Your task to perform on an android device: Open the calendar and show me this week's events? Image 0: 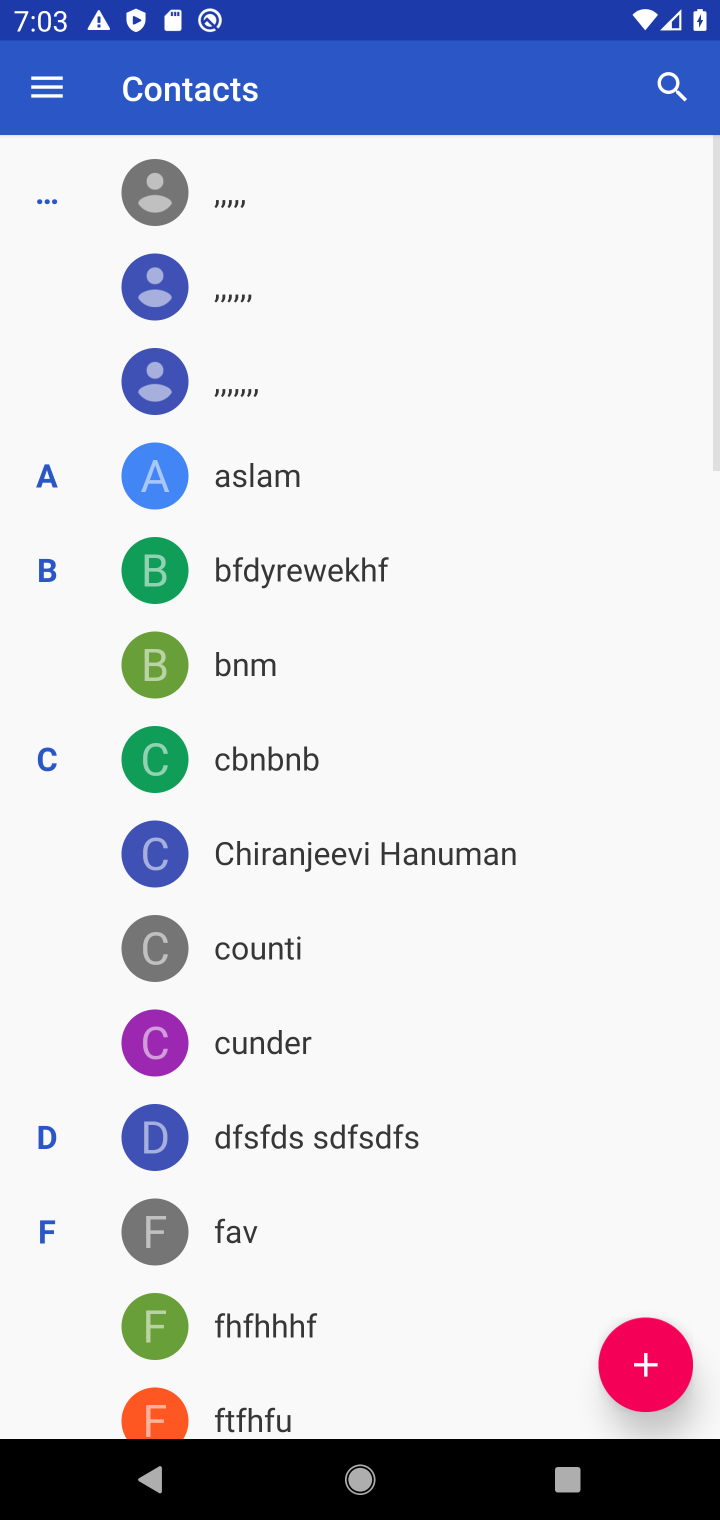
Step 0: press home button
Your task to perform on an android device: Open the calendar and show me this week's events? Image 1: 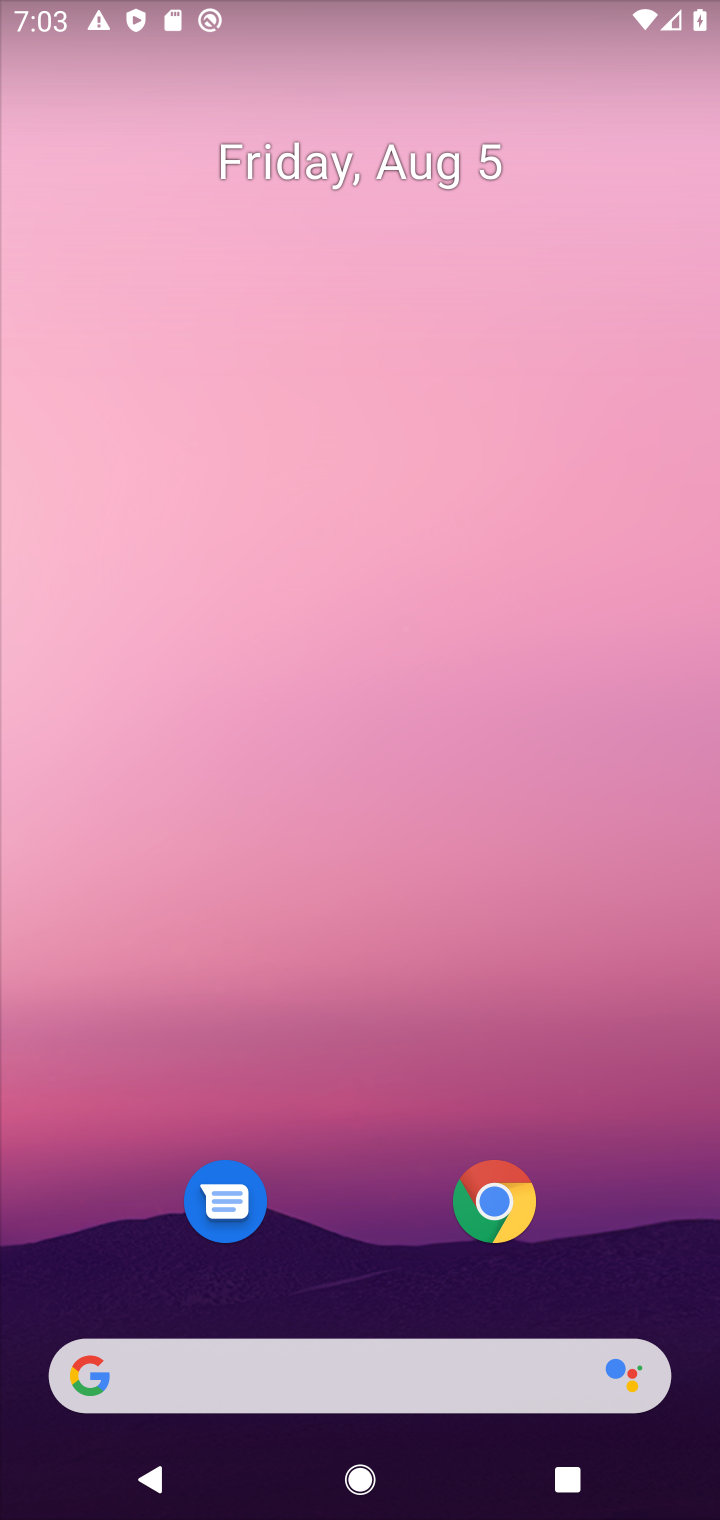
Step 1: drag from (402, 1272) to (283, 579)
Your task to perform on an android device: Open the calendar and show me this week's events? Image 2: 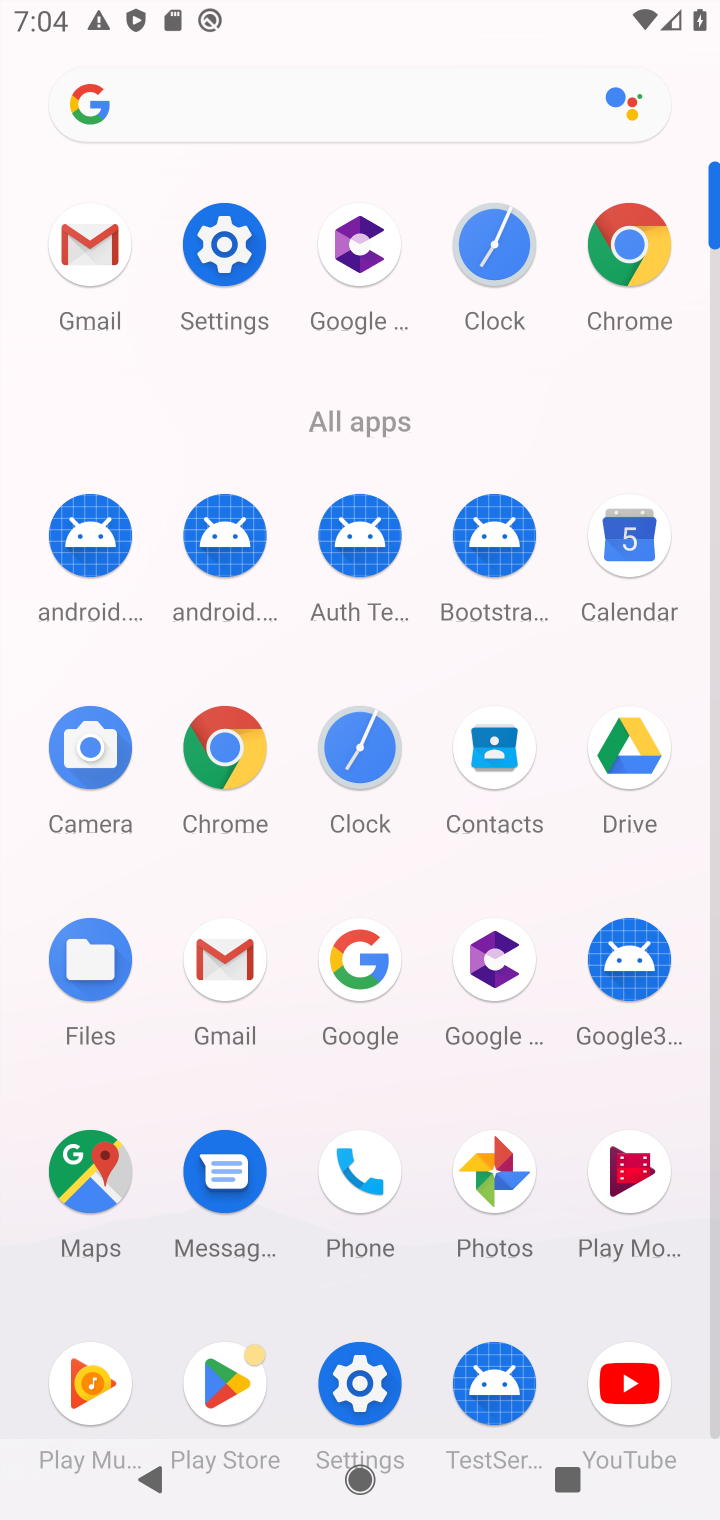
Step 2: click (626, 538)
Your task to perform on an android device: Open the calendar and show me this week's events? Image 3: 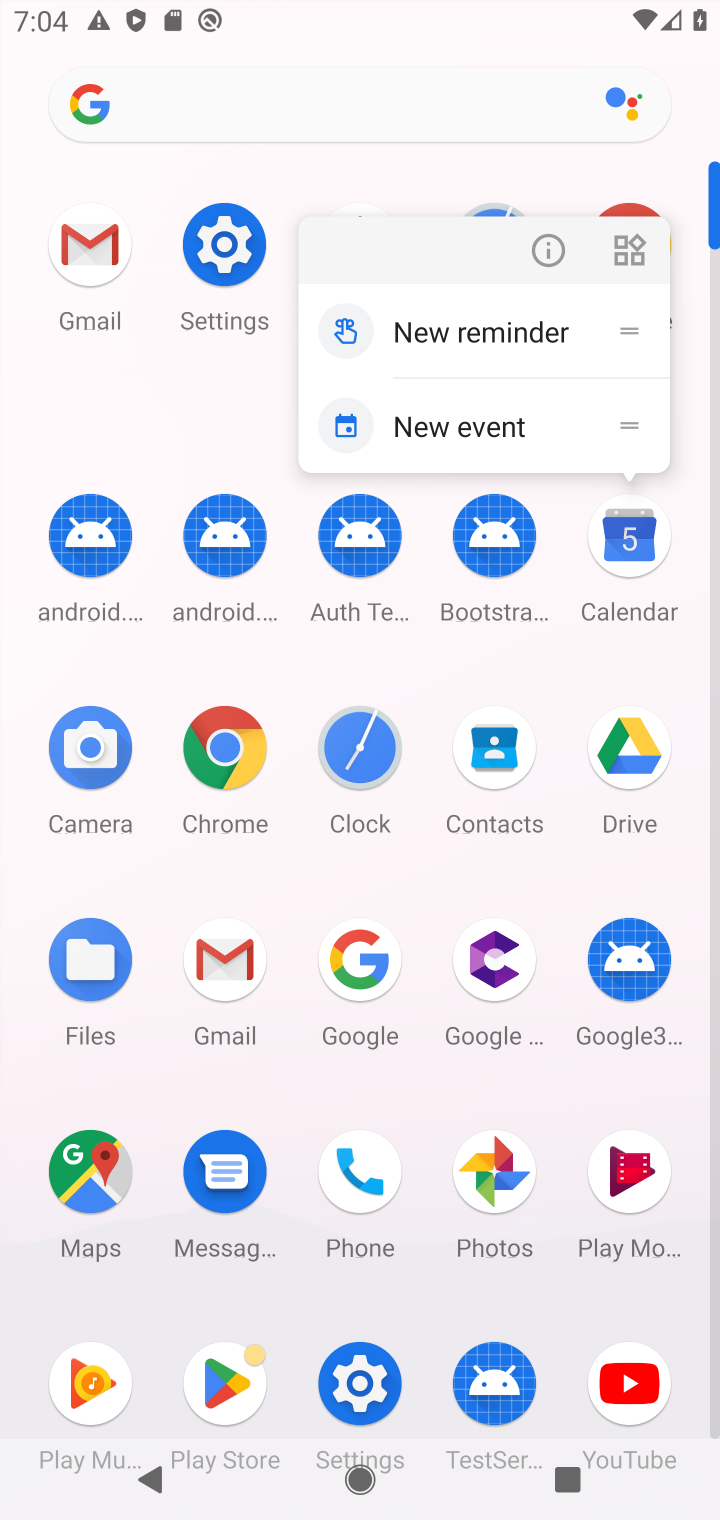
Step 3: click (613, 568)
Your task to perform on an android device: Open the calendar and show me this week's events? Image 4: 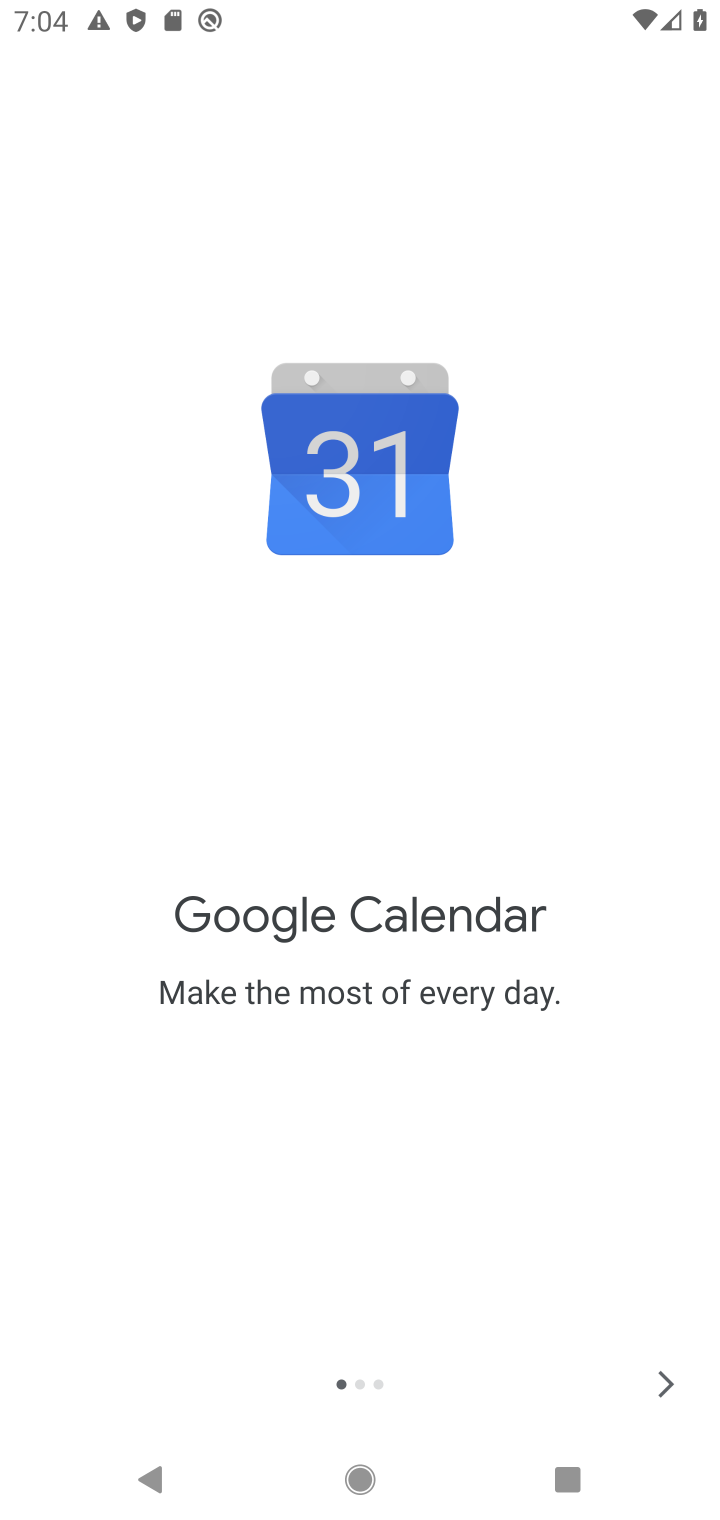
Step 4: click (675, 1368)
Your task to perform on an android device: Open the calendar and show me this week's events? Image 5: 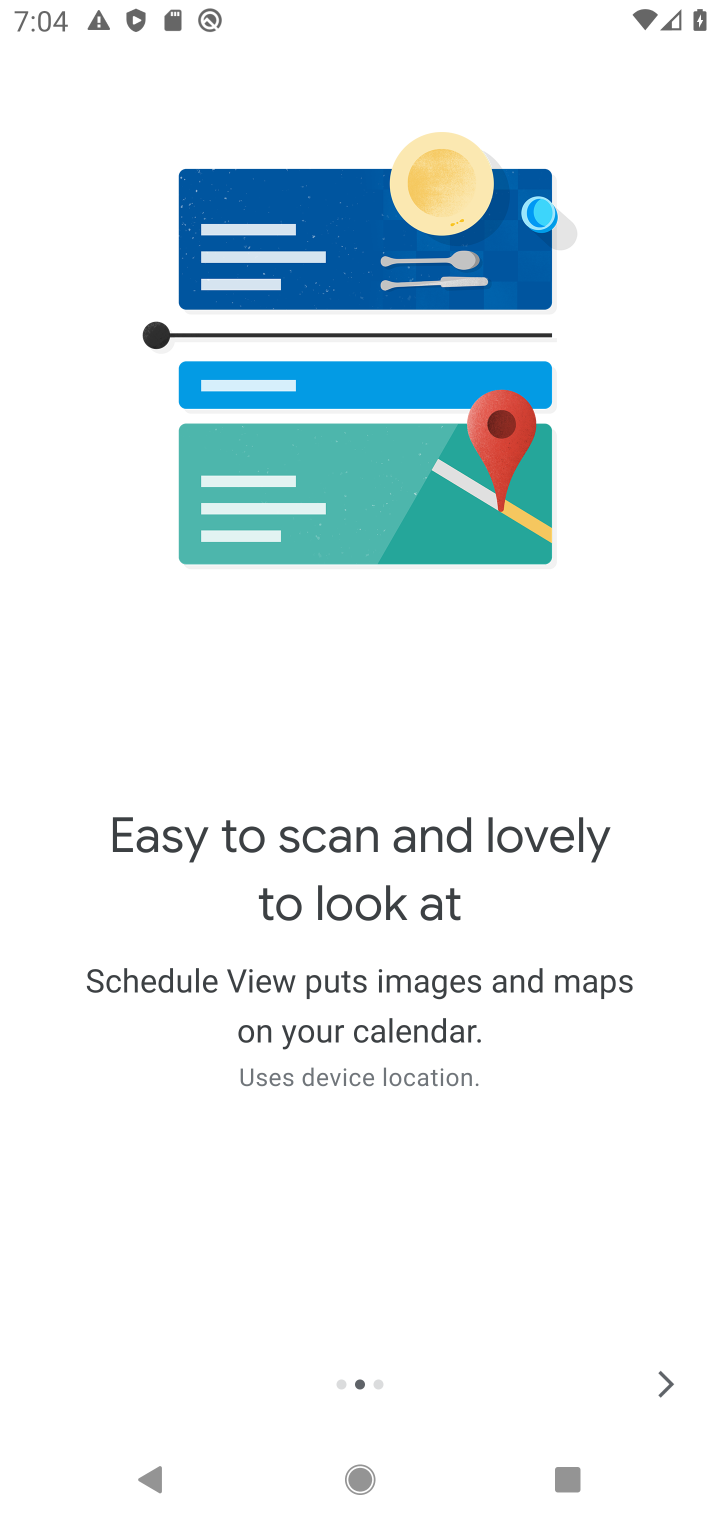
Step 5: click (651, 1378)
Your task to perform on an android device: Open the calendar and show me this week's events? Image 6: 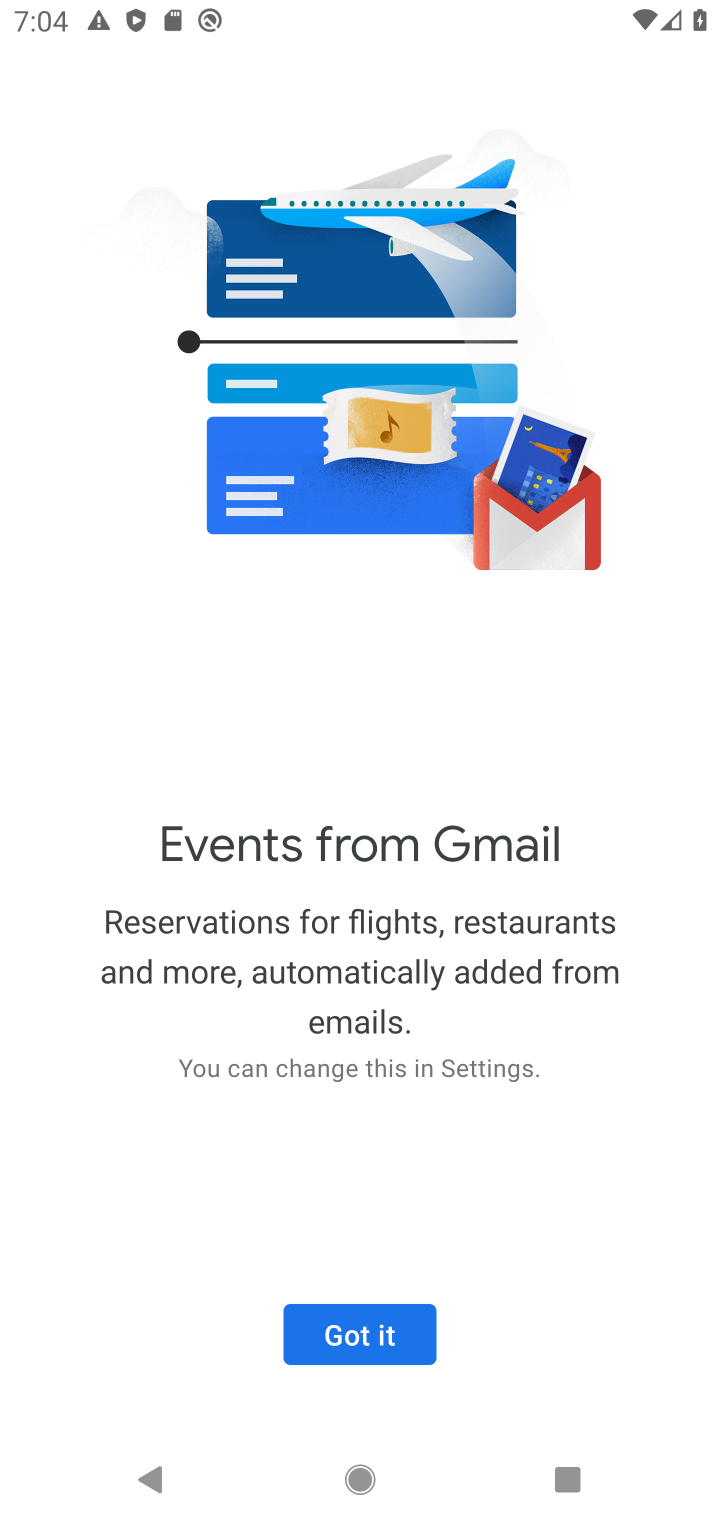
Step 6: click (424, 1325)
Your task to perform on an android device: Open the calendar and show me this week's events? Image 7: 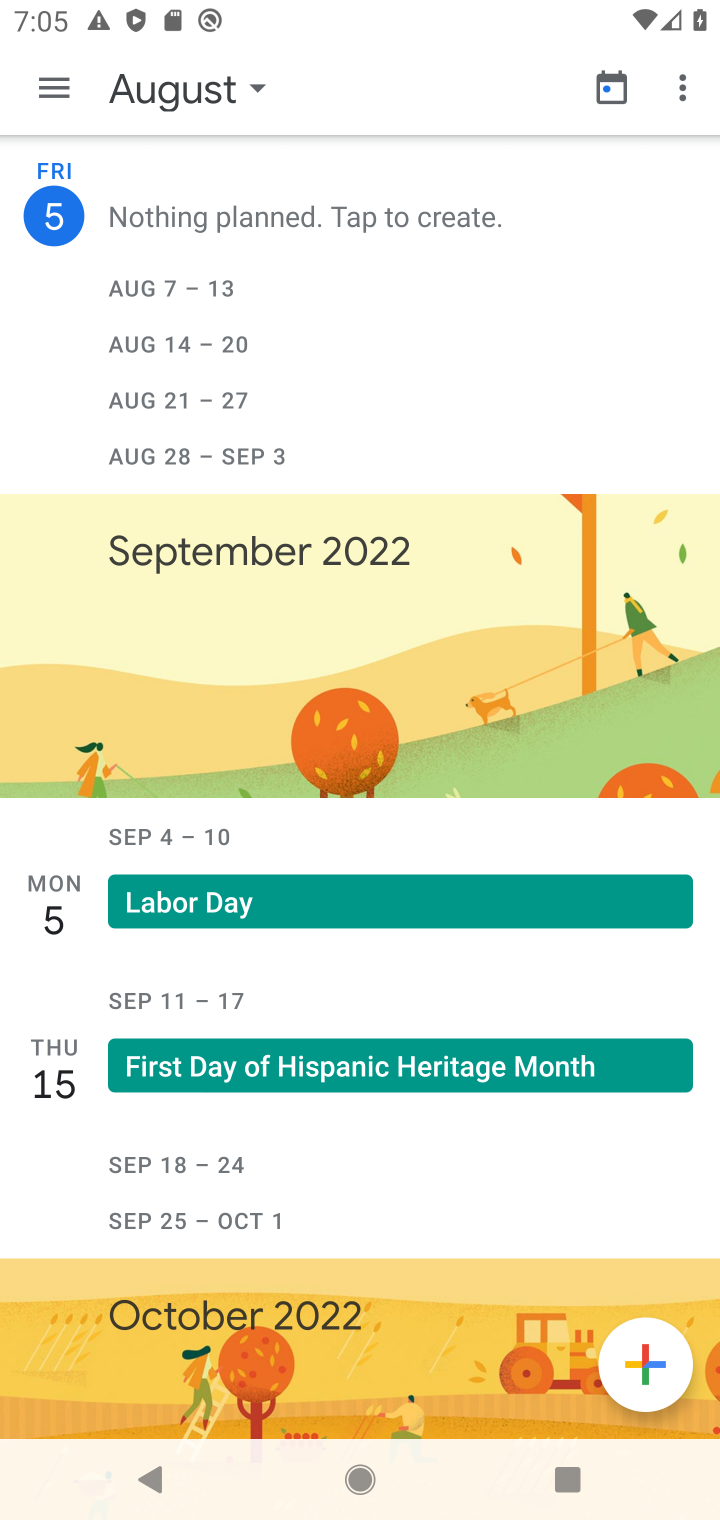
Step 7: click (69, 87)
Your task to perform on an android device: Open the calendar and show me this week's events? Image 8: 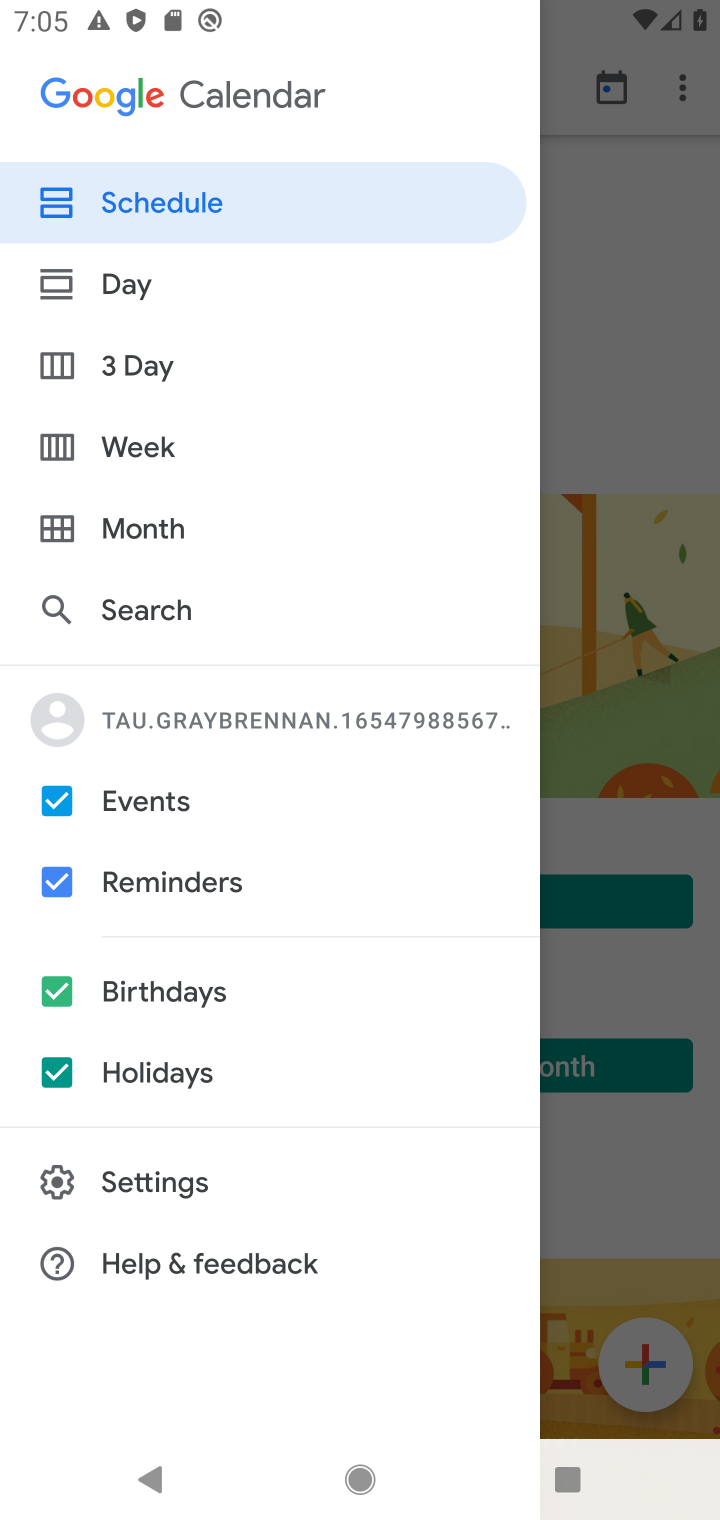
Step 8: click (159, 527)
Your task to perform on an android device: Open the calendar and show me this week's events? Image 9: 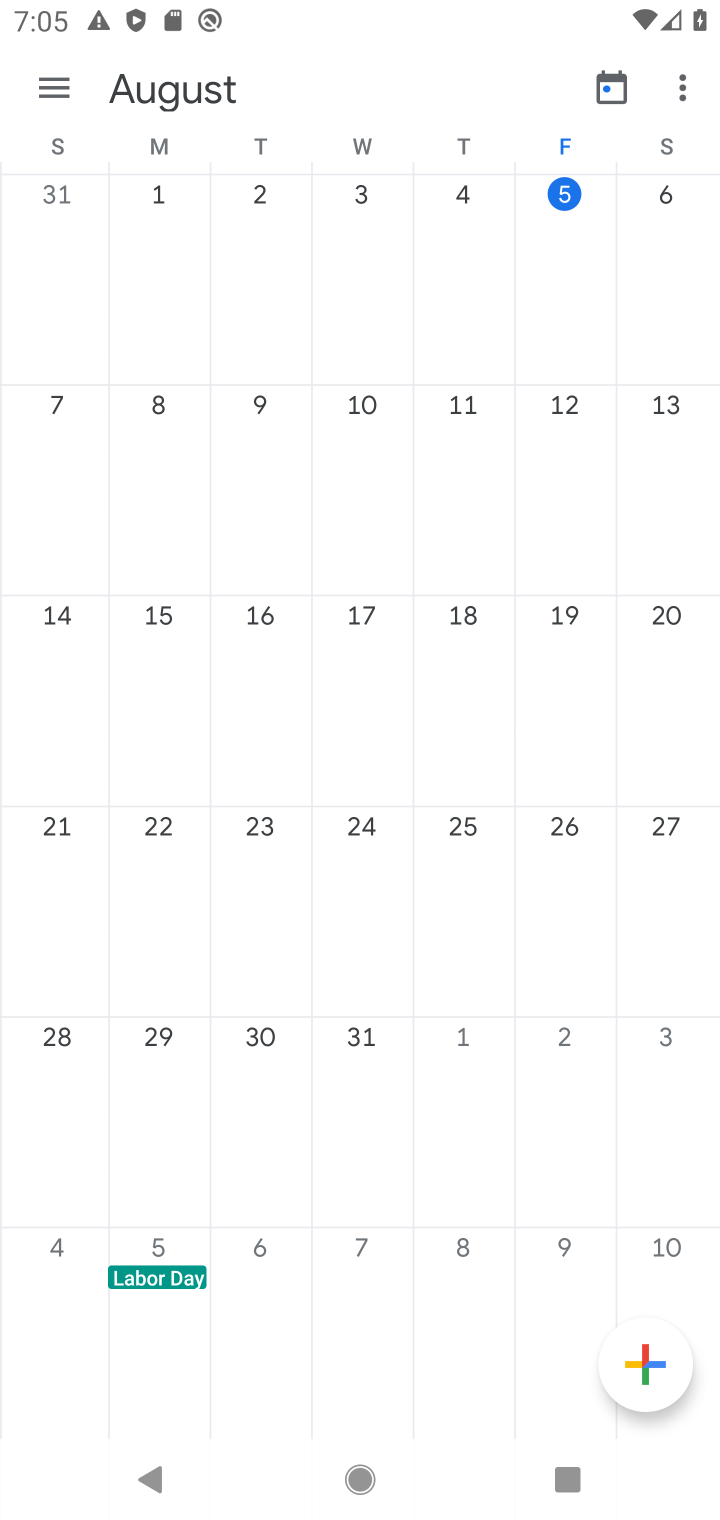
Step 9: click (553, 324)
Your task to perform on an android device: Open the calendar and show me this week's events? Image 10: 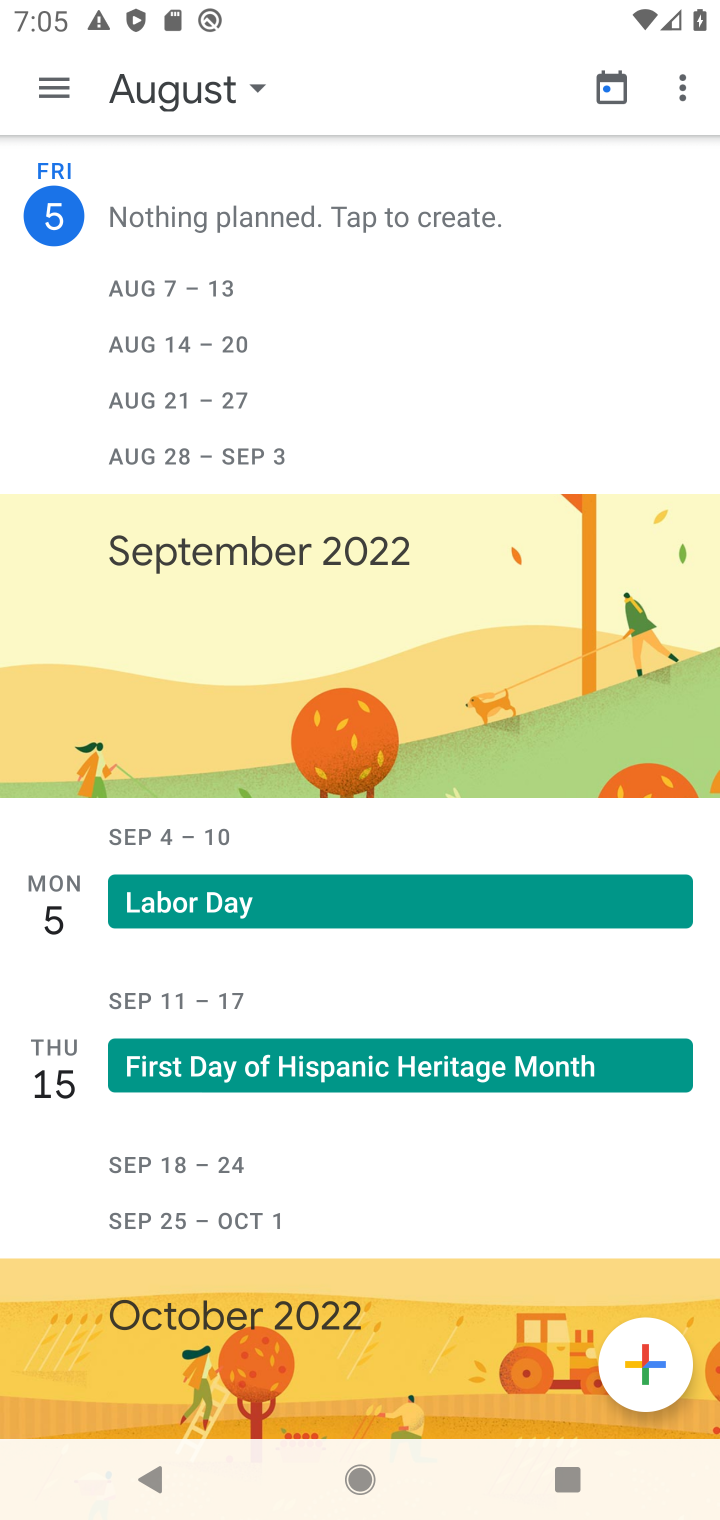
Step 10: task complete